Your task to perform on an android device: open app "Upside-Cash back on gas & food" (install if not already installed) Image 0: 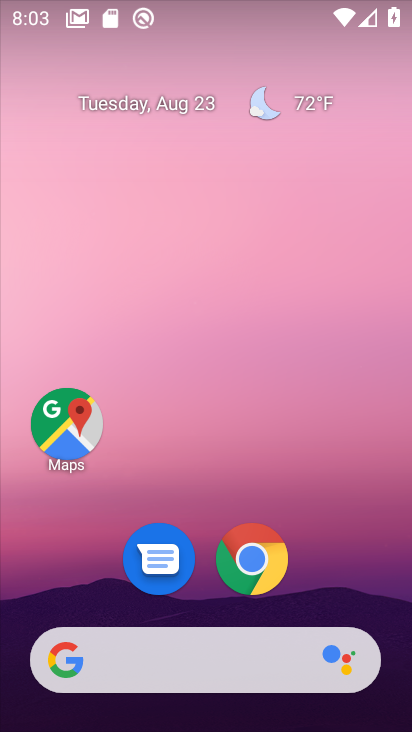
Step 0: drag from (207, 495) to (220, 96)
Your task to perform on an android device: open app "Upside-Cash back on gas & food" (install if not already installed) Image 1: 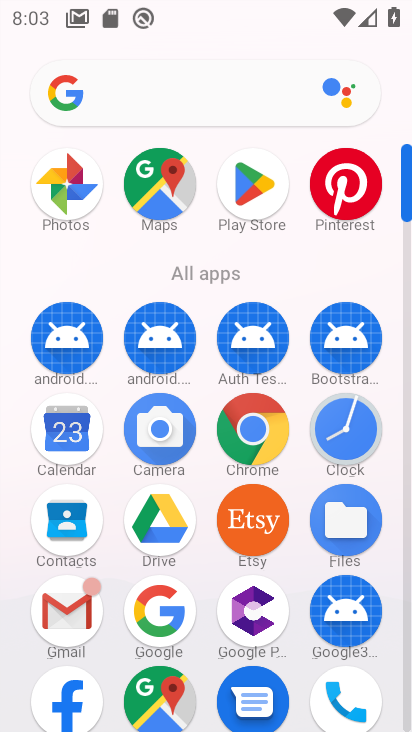
Step 1: click (243, 162)
Your task to perform on an android device: open app "Upside-Cash back on gas & food" (install if not already installed) Image 2: 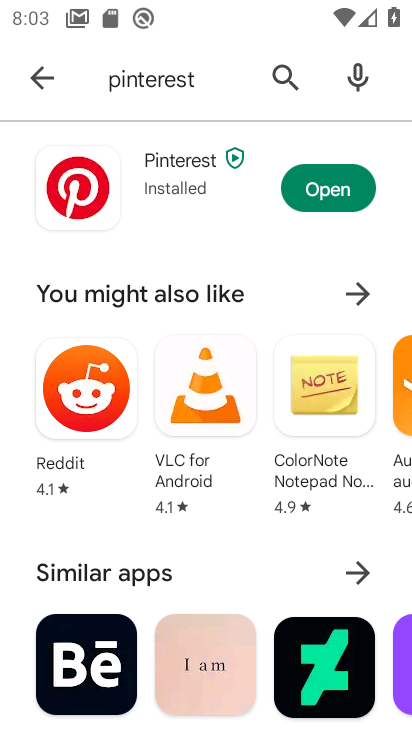
Step 2: click (290, 68)
Your task to perform on an android device: open app "Upside-Cash back on gas & food" (install if not already installed) Image 3: 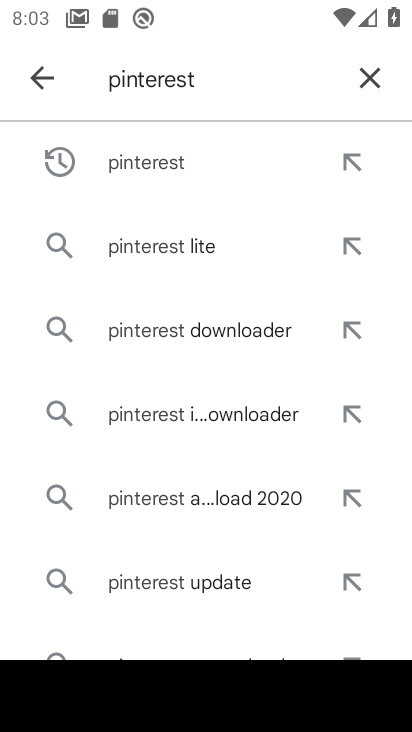
Step 3: click (357, 69)
Your task to perform on an android device: open app "Upside-Cash back on gas & food" (install if not already installed) Image 4: 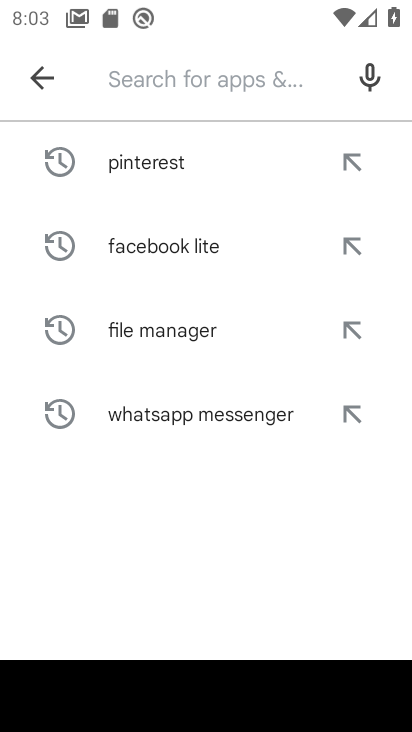
Step 4: type "Upside-Cash back on gas & food"
Your task to perform on an android device: open app "Upside-Cash back on gas & food" (install if not already installed) Image 5: 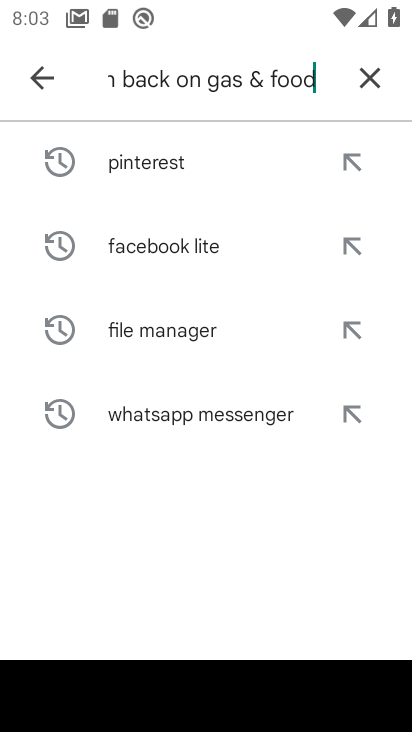
Step 5: type ""
Your task to perform on an android device: open app "Upside-Cash back on gas & food" (install if not already installed) Image 6: 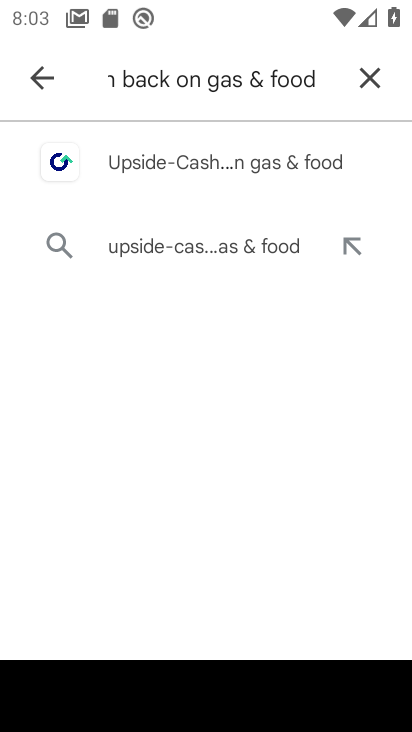
Step 6: click (219, 166)
Your task to perform on an android device: open app "Upside-Cash back on gas & food" (install if not already installed) Image 7: 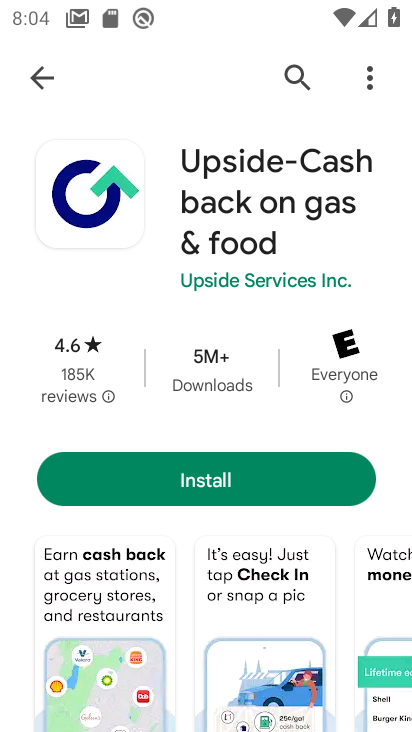
Step 7: click (221, 475)
Your task to perform on an android device: open app "Upside-Cash back on gas & food" (install if not already installed) Image 8: 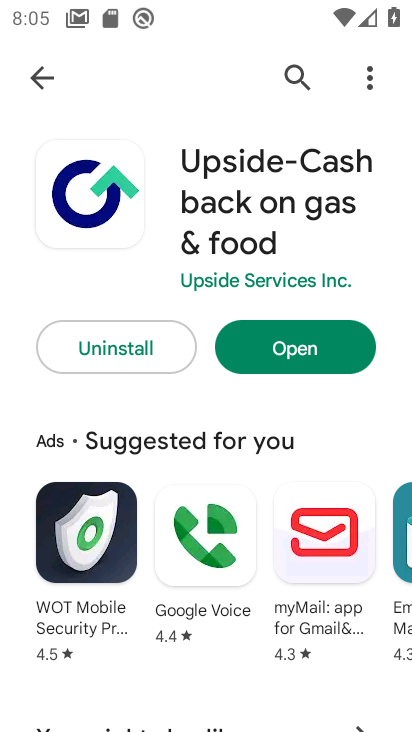
Step 8: click (256, 346)
Your task to perform on an android device: open app "Upside-Cash back on gas & food" (install if not already installed) Image 9: 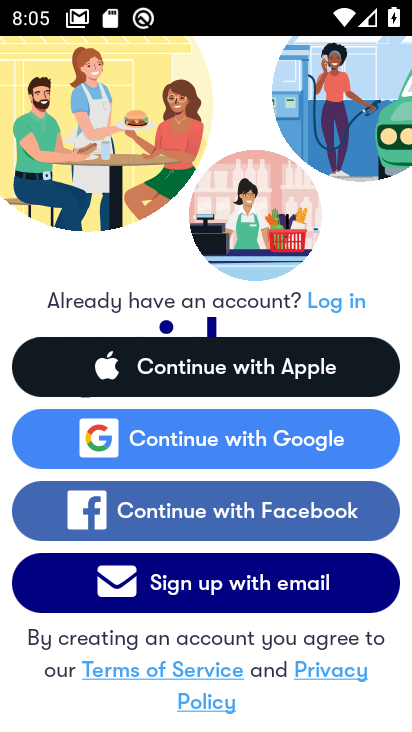
Step 9: task complete